Your task to perform on an android device: turn off priority inbox in the gmail app Image 0: 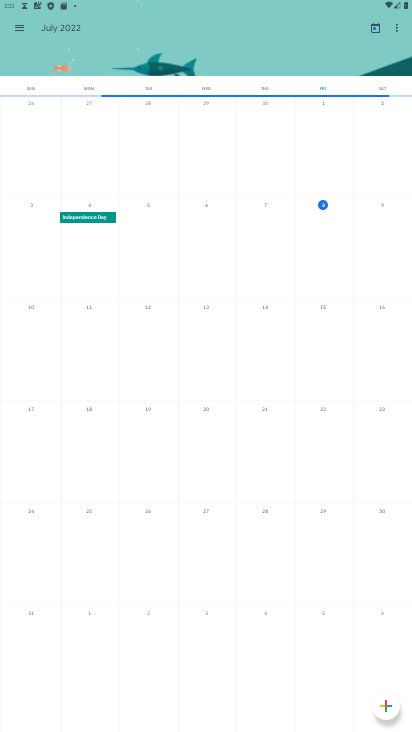
Step 0: press home button
Your task to perform on an android device: turn off priority inbox in the gmail app Image 1: 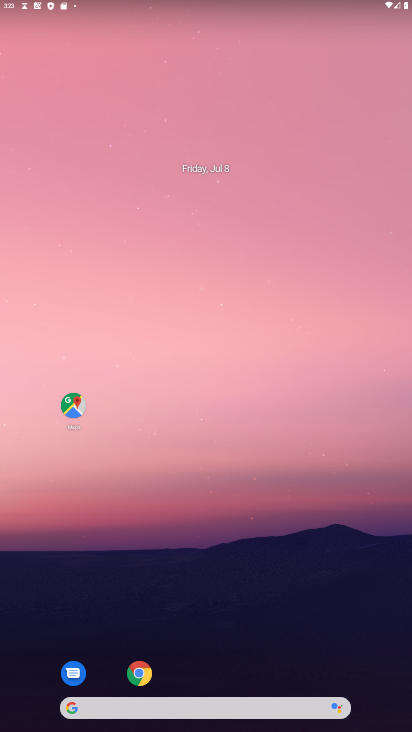
Step 1: drag from (225, 568) to (401, 58)
Your task to perform on an android device: turn off priority inbox in the gmail app Image 2: 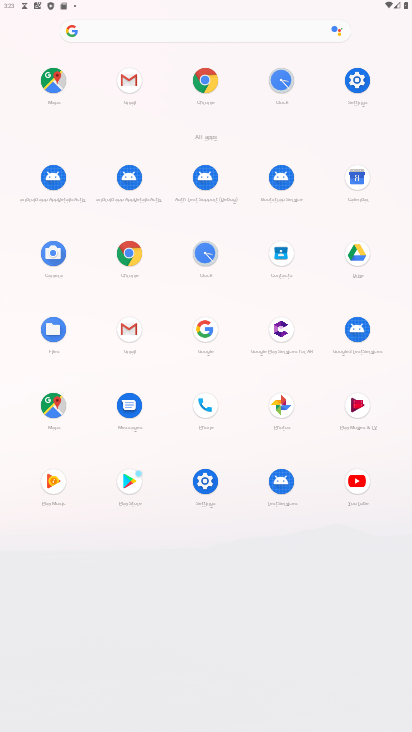
Step 2: click (129, 323)
Your task to perform on an android device: turn off priority inbox in the gmail app Image 3: 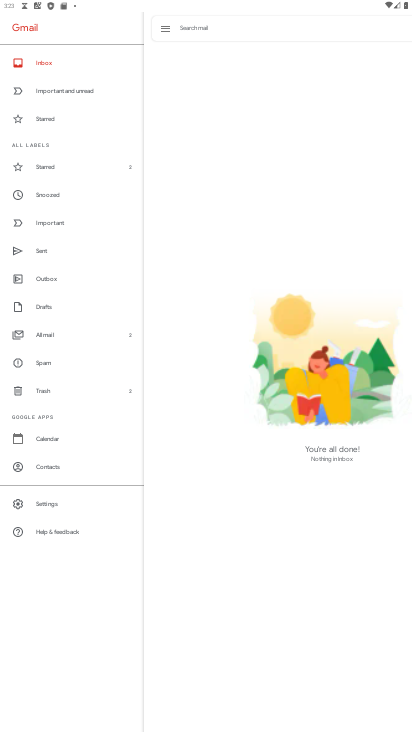
Step 3: click (52, 506)
Your task to perform on an android device: turn off priority inbox in the gmail app Image 4: 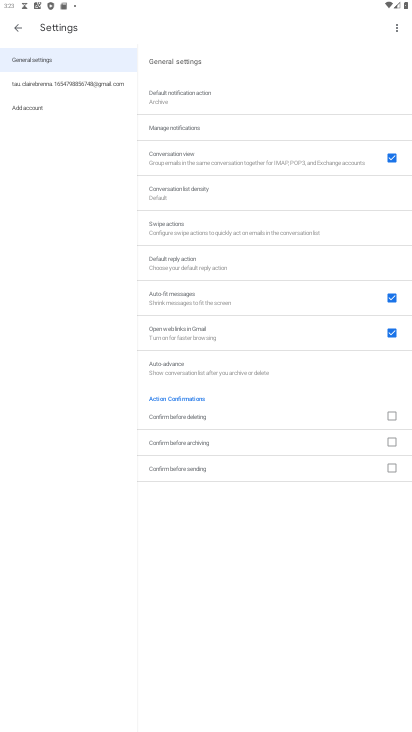
Step 4: click (71, 89)
Your task to perform on an android device: turn off priority inbox in the gmail app Image 5: 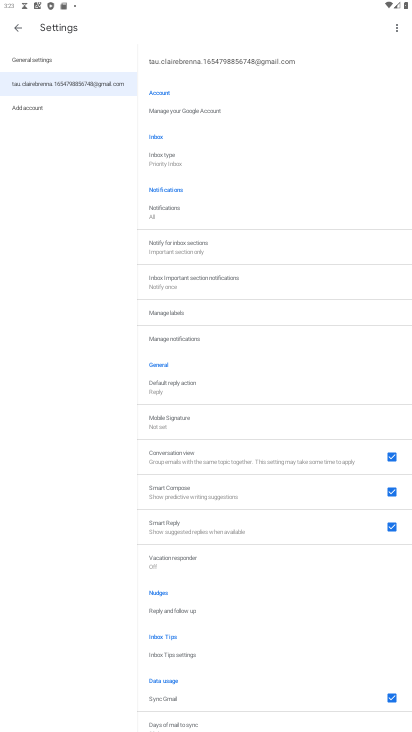
Step 5: click (188, 157)
Your task to perform on an android device: turn off priority inbox in the gmail app Image 6: 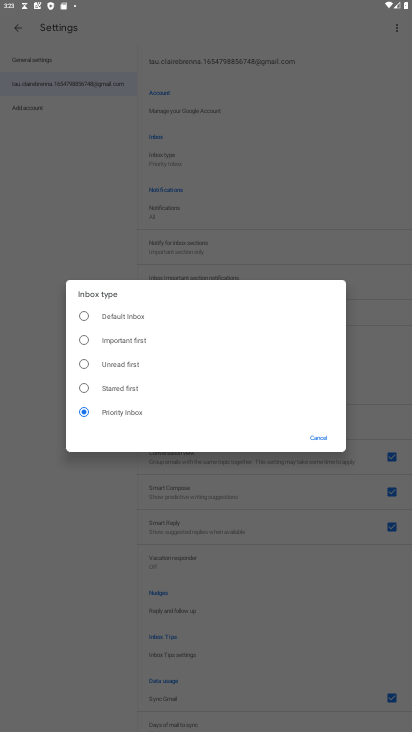
Step 6: click (108, 311)
Your task to perform on an android device: turn off priority inbox in the gmail app Image 7: 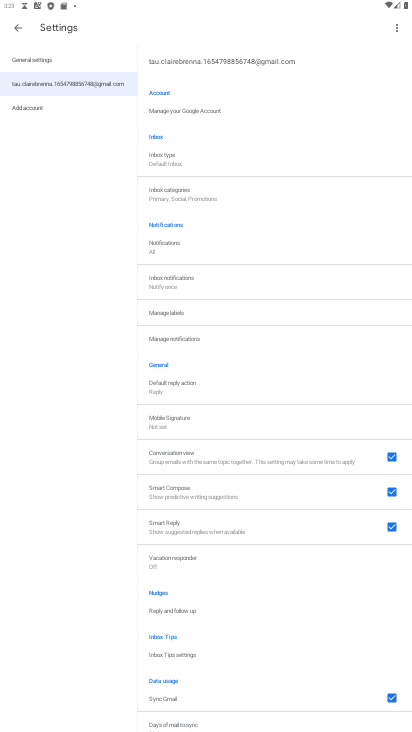
Step 7: task complete